Your task to perform on an android device: open app "Gmail" (install if not already installed), go to login, and select forgot password Image 0: 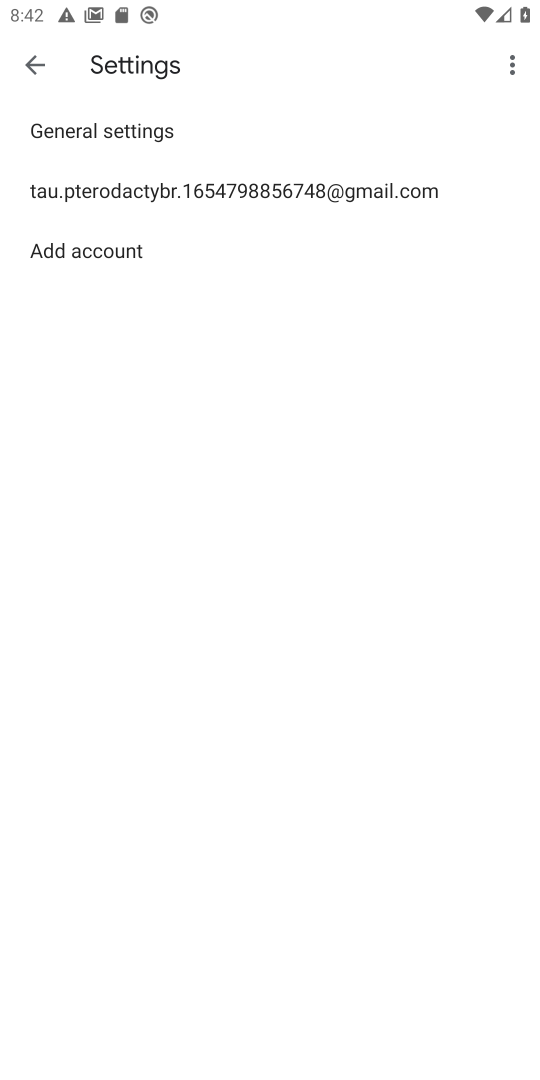
Step 0: press home button
Your task to perform on an android device: open app "Gmail" (install if not already installed), go to login, and select forgot password Image 1: 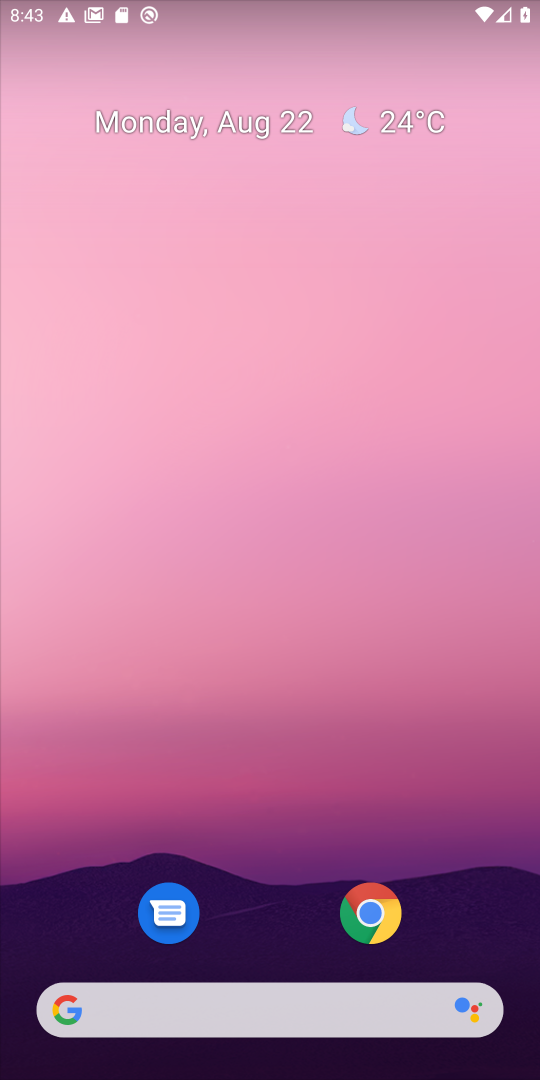
Step 1: drag from (252, 889) to (228, 272)
Your task to perform on an android device: open app "Gmail" (install if not already installed), go to login, and select forgot password Image 2: 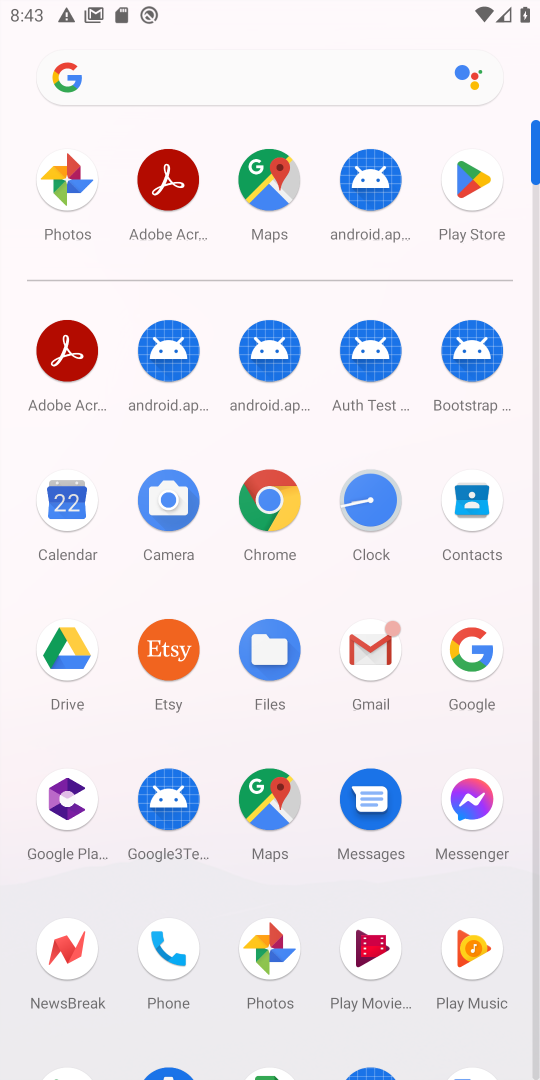
Step 2: click (463, 197)
Your task to perform on an android device: open app "Gmail" (install if not already installed), go to login, and select forgot password Image 3: 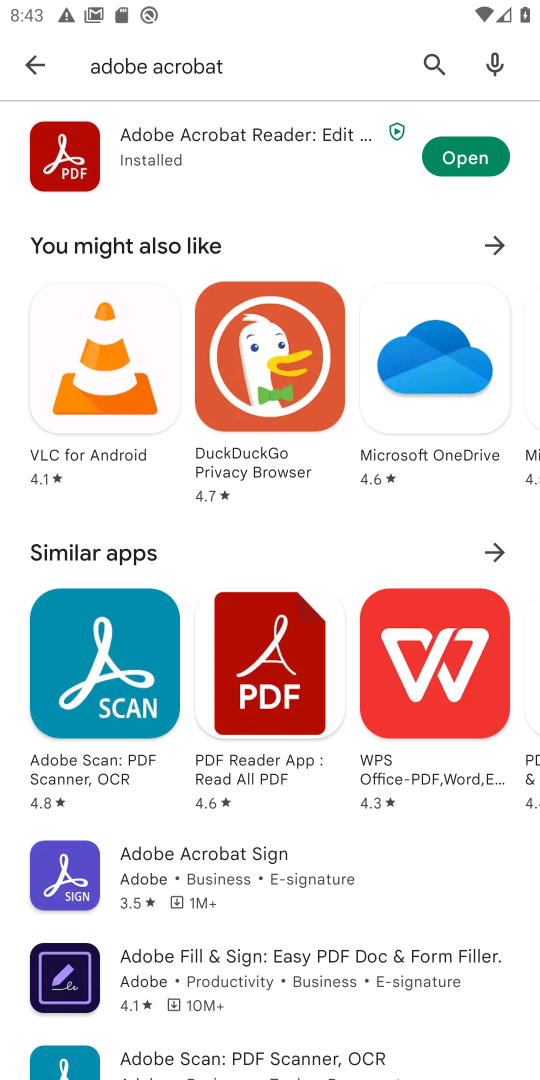
Step 3: click (425, 61)
Your task to perform on an android device: open app "Gmail" (install if not already installed), go to login, and select forgot password Image 4: 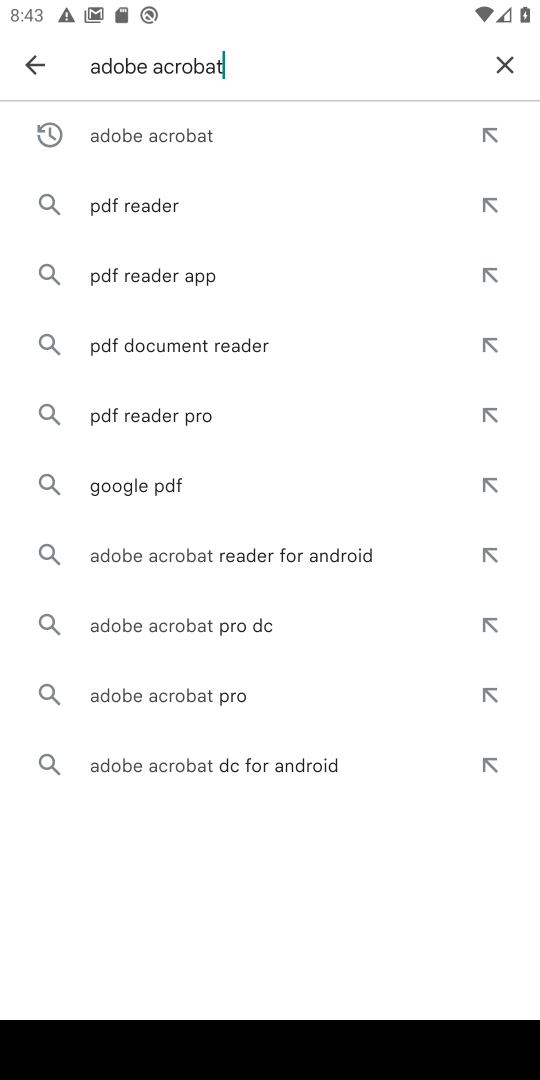
Step 4: click (499, 56)
Your task to perform on an android device: open app "Gmail" (install if not already installed), go to login, and select forgot password Image 5: 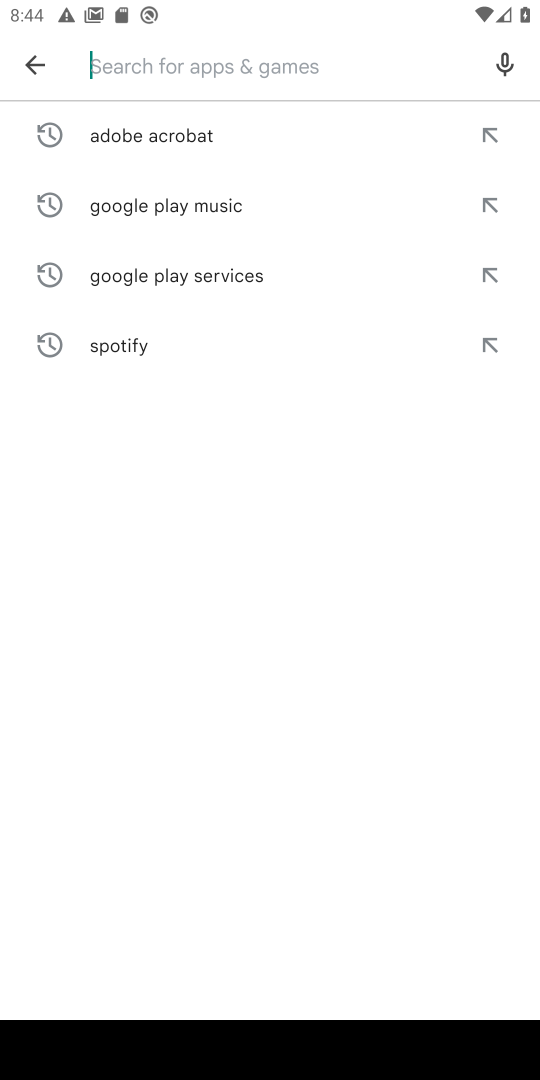
Step 5: type "gmail"
Your task to perform on an android device: open app "Gmail" (install if not already installed), go to login, and select forgot password Image 6: 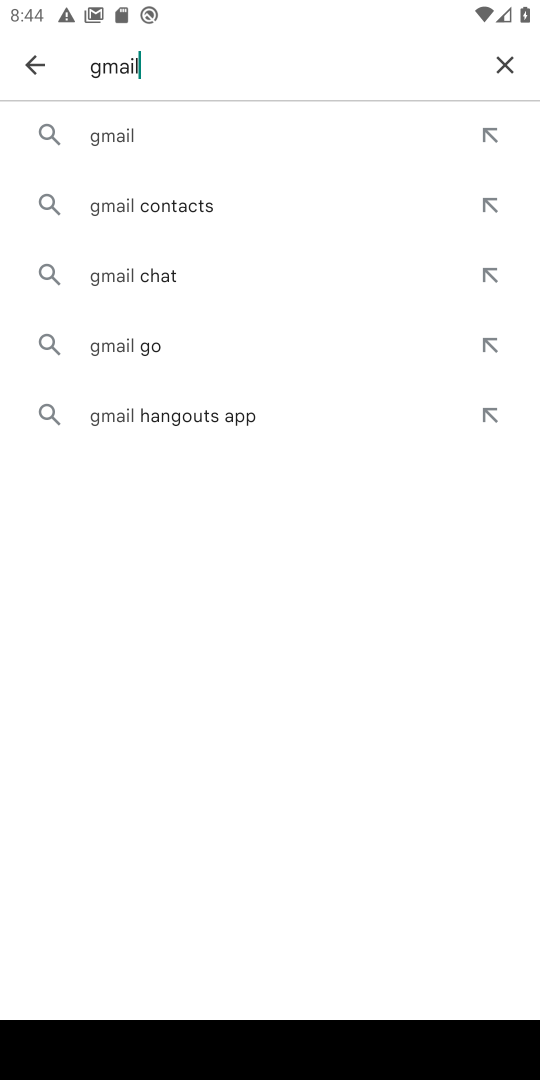
Step 6: click (131, 137)
Your task to perform on an android device: open app "Gmail" (install if not already installed), go to login, and select forgot password Image 7: 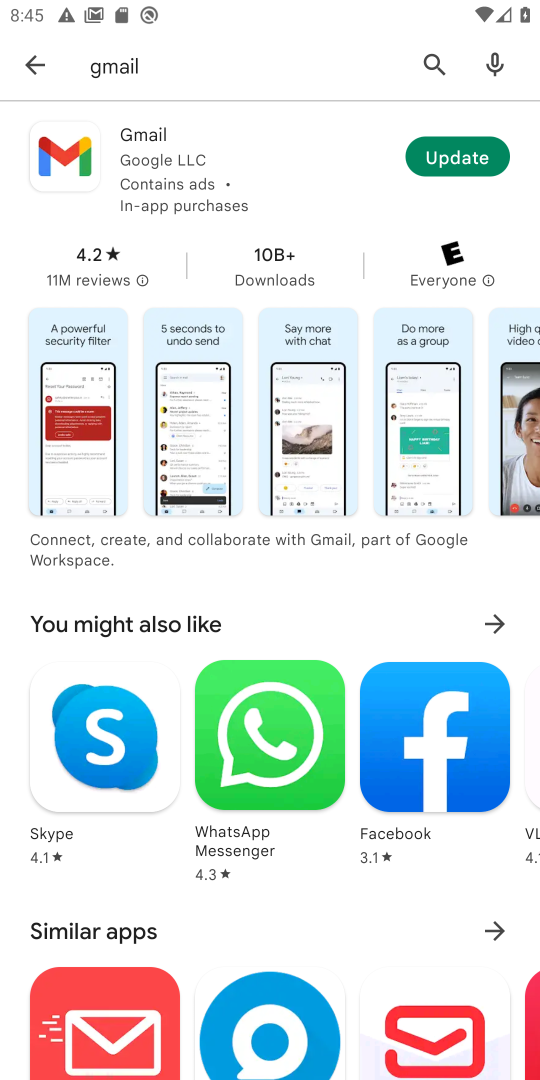
Step 7: click (162, 166)
Your task to perform on an android device: open app "Gmail" (install if not already installed), go to login, and select forgot password Image 8: 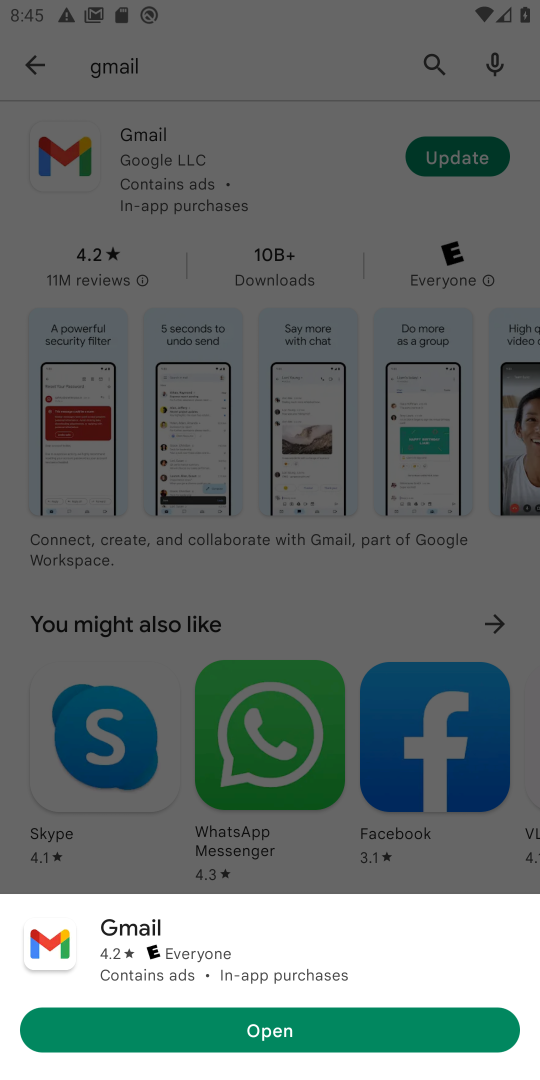
Step 8: click (262, 1030)
Your task to perform on an android device: open app "Gmail" (install if not already installed), go to login, and select forgot password Image 9: 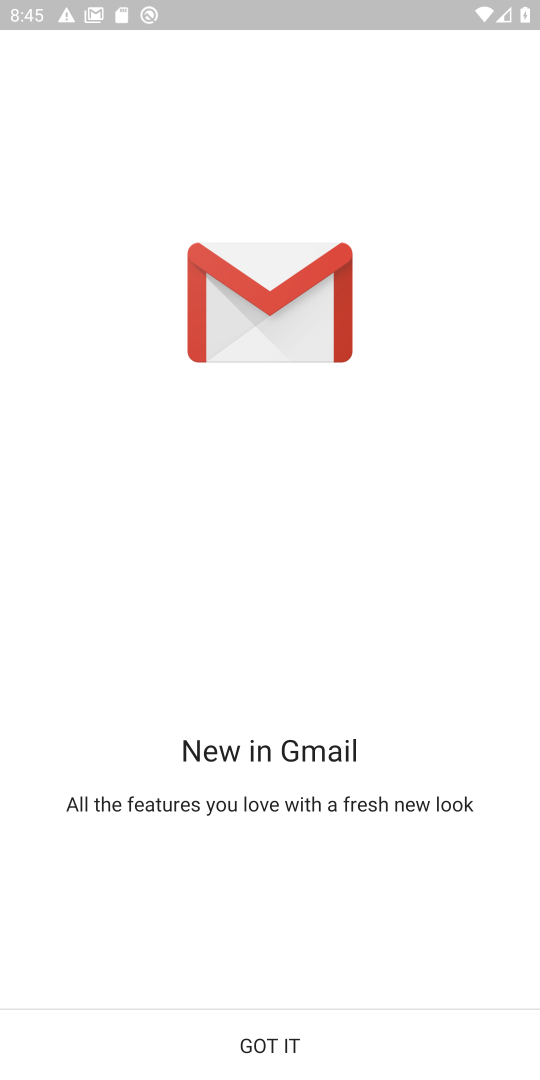
Step 9: click (272, 1025)
Your task to perform on an android device: open app "Gmail" (install if not already installed), go to login, and select forgot password Image 10: 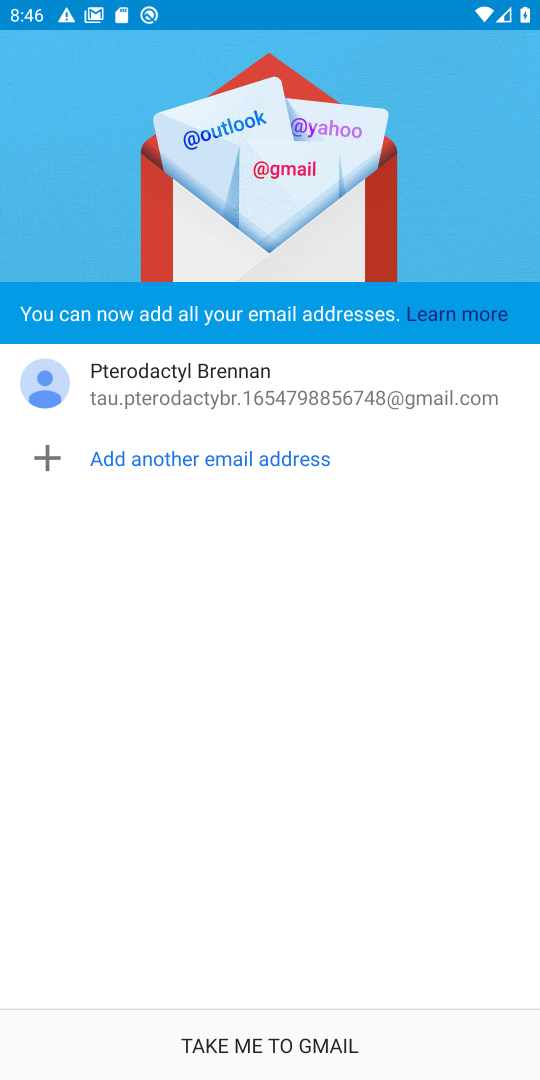
Step 10: task complete